Your task to perform on an android device: change notification settings in the gmail app Image 0: 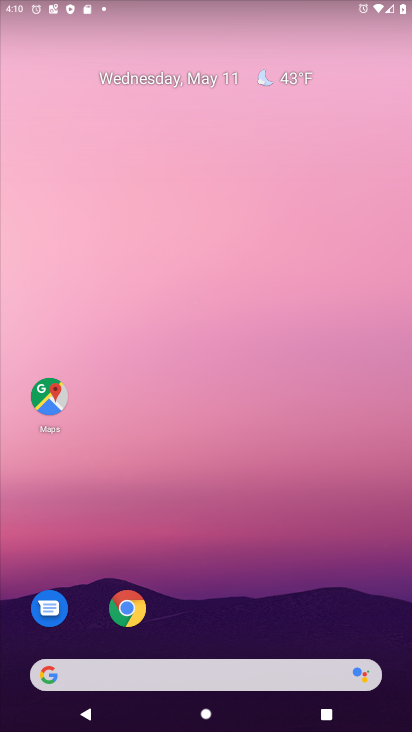
Step 0: drag from (217, 729) to (227, 166)
Your task to perform on an android device: change notification settings in the gmail app Image 1: 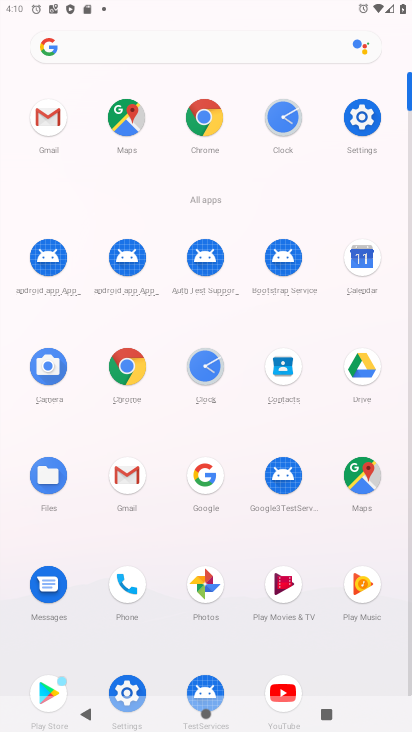
Step 1: click (122, 475)
Your task to perform on an android device: change notification settings in the gmail app Image 2: 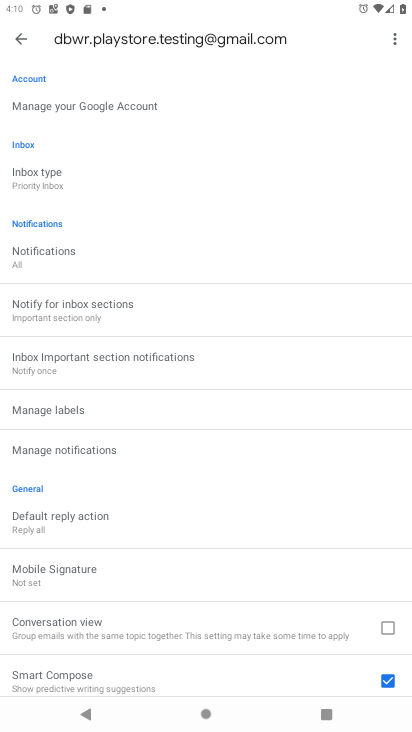
Step 2: click (48, 250)
Your task to perform on an android device: change notification settings in the gmail app Image 3: 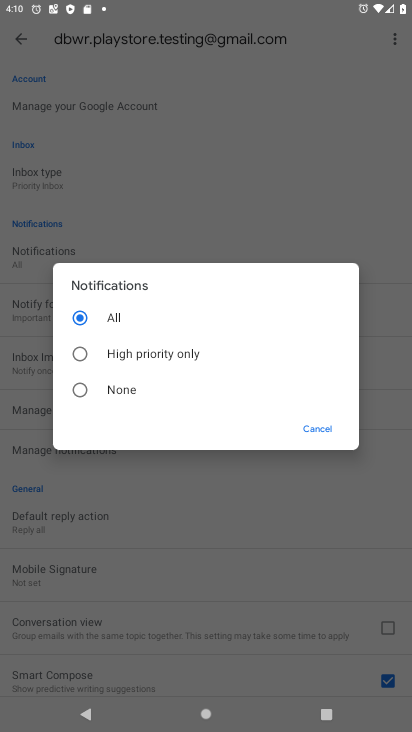
Step 3: click (84, 385)
Your task to perform on an android device: change notification settings in the gmail app Image 4: 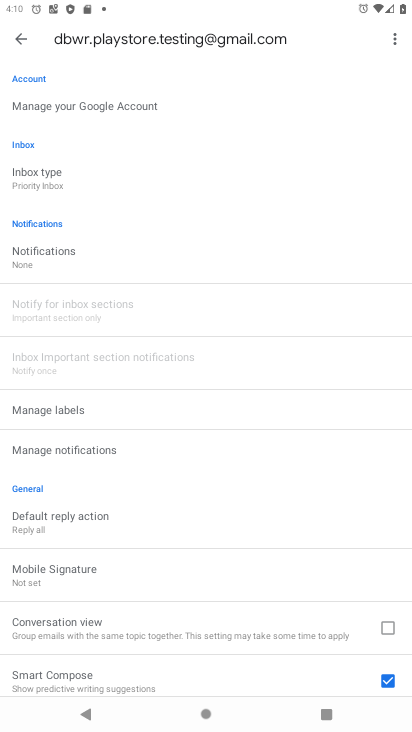
Step 4: task complete